Your task to perform on an android device: What's the weather going to be tomorrow? Image 0: 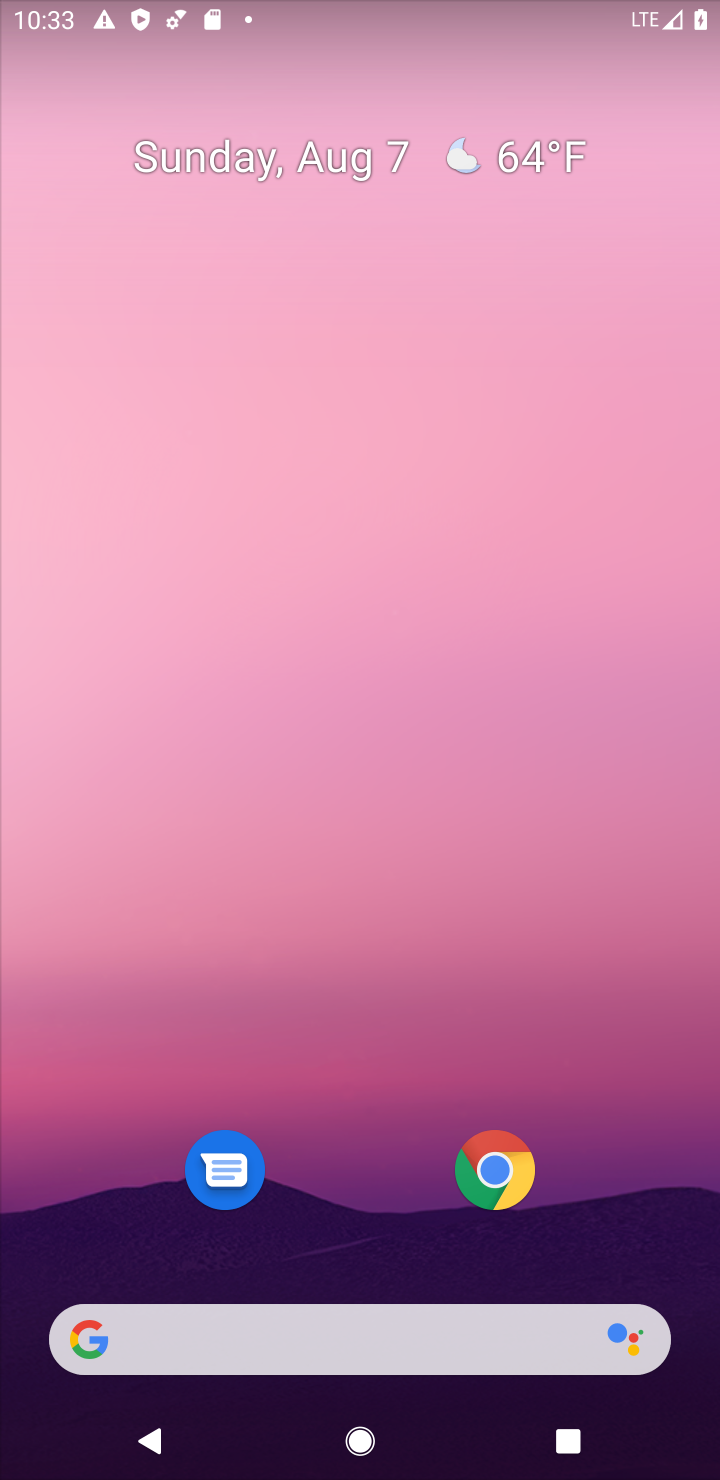
Step 0: drag from (448, 1311) to (718, 1303)
Your task to perform on an android device: What's the weather going to be tomorrow? Image 1: 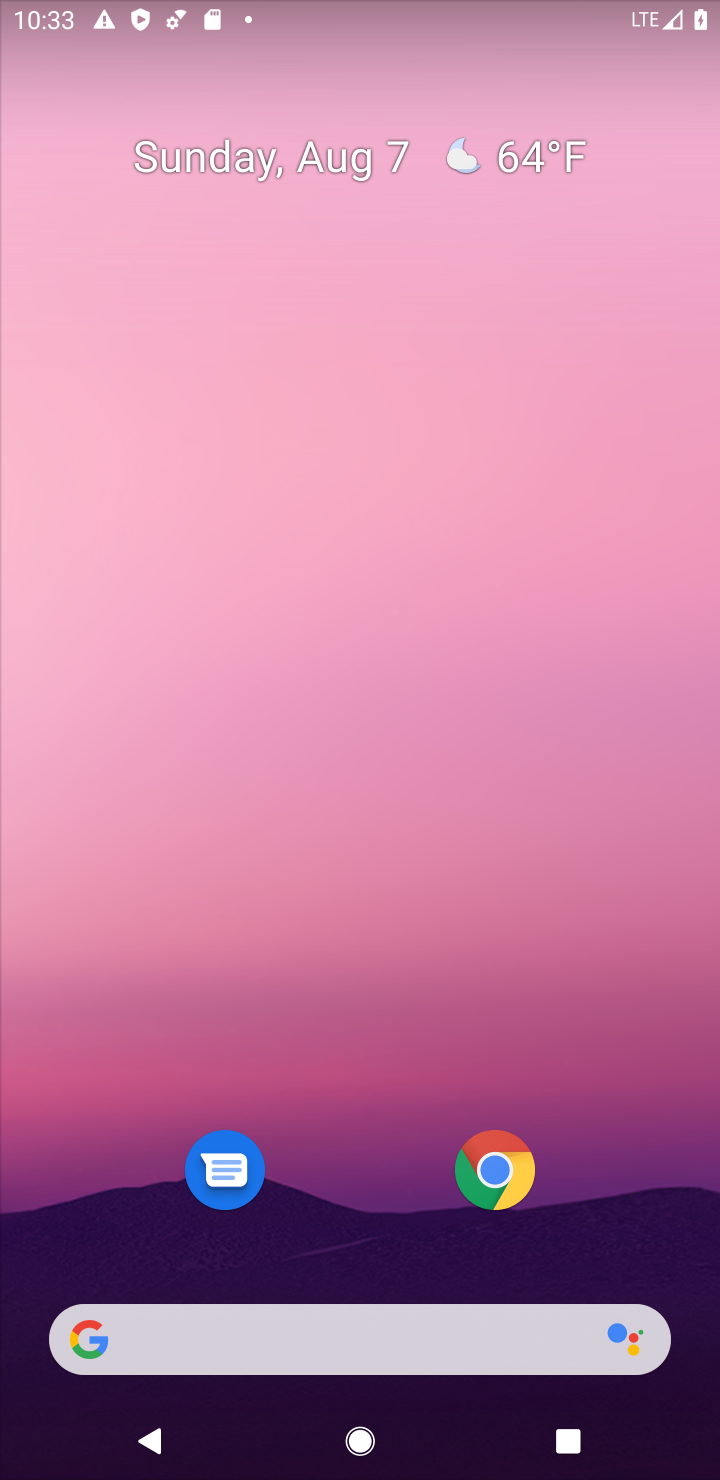
Step 1: drag from (381, 1333) to (344, 19)
Your task to perform on an android device: What's the weather going to be tomorrow? Image 2: 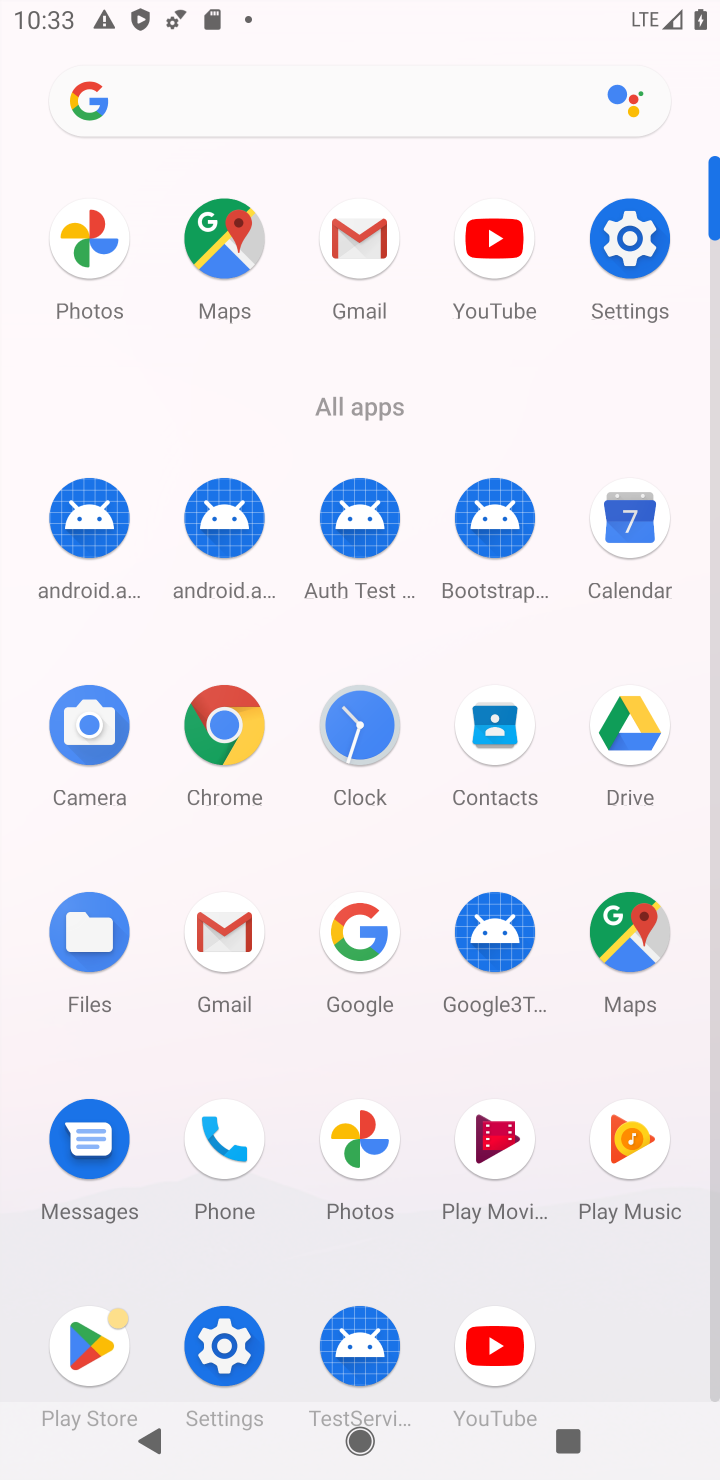
Step 2: click (222, 724)
Your task to perform on an android device: What's the weather going to be tomorrow? Image 3: 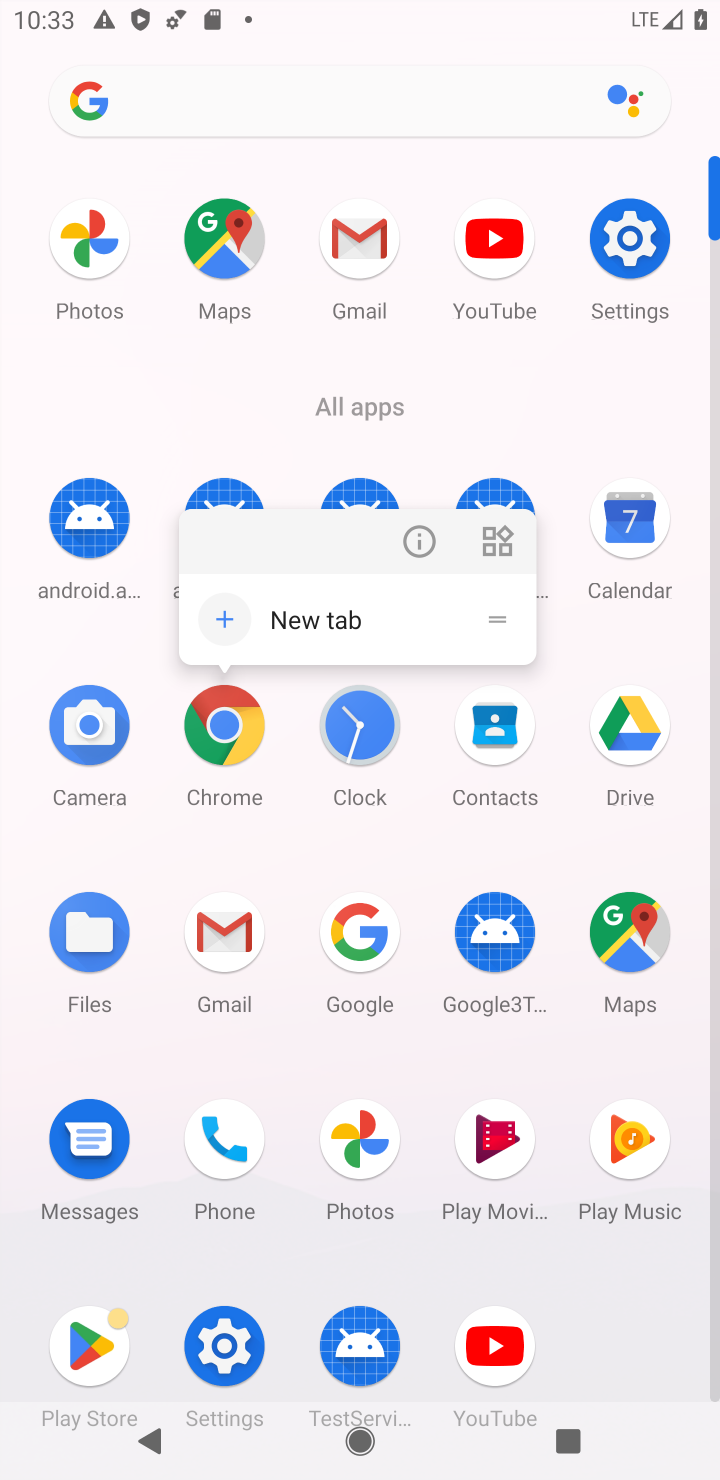
Step 3: click (354, 947)
Your task to perform on an android device: What's the weather going to be tomorrow? Image 4: 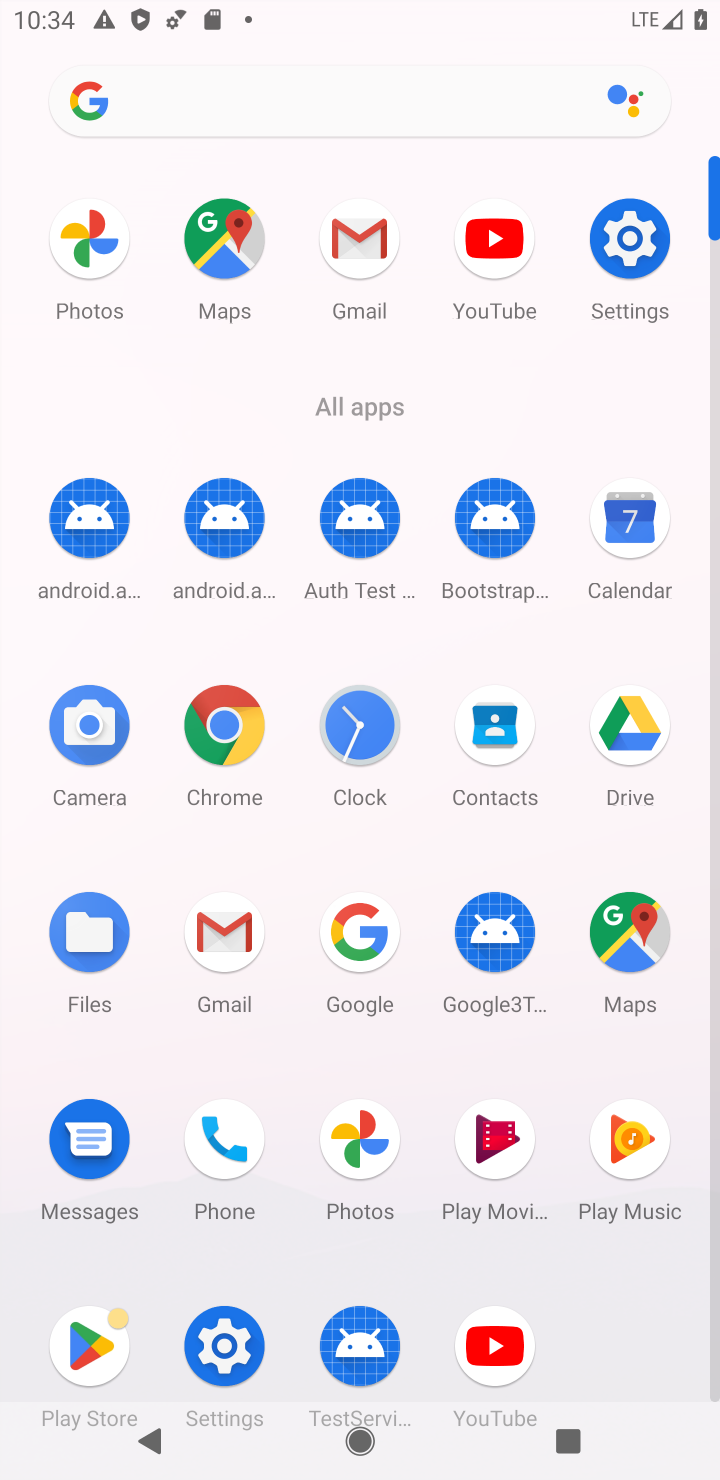
Step 4: click (354, 923)
Your task to perform on an android device: What's the weather going to be tomorrow? Image 5: 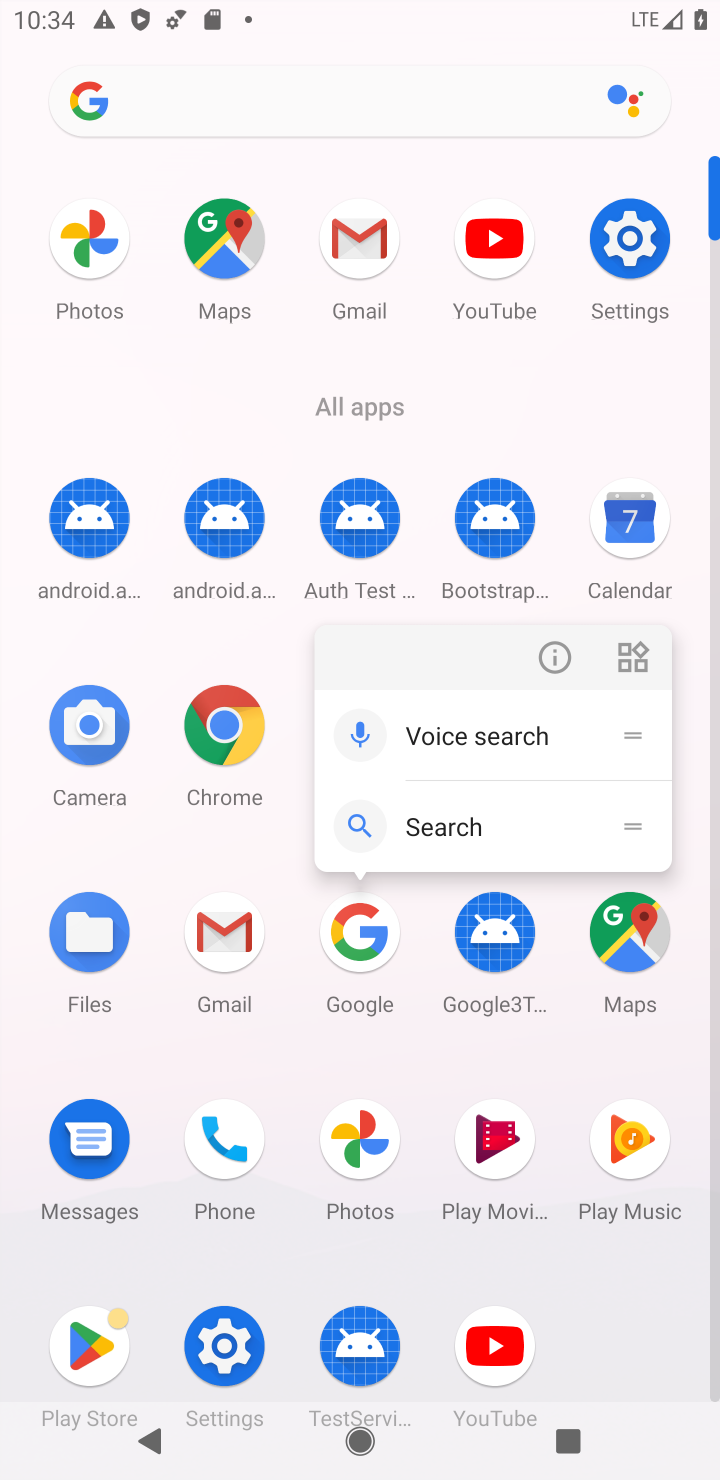
Step 5: click (354, 923)
Your task to perform on an android device: What's the weather going to be tomorrow? Image 6: 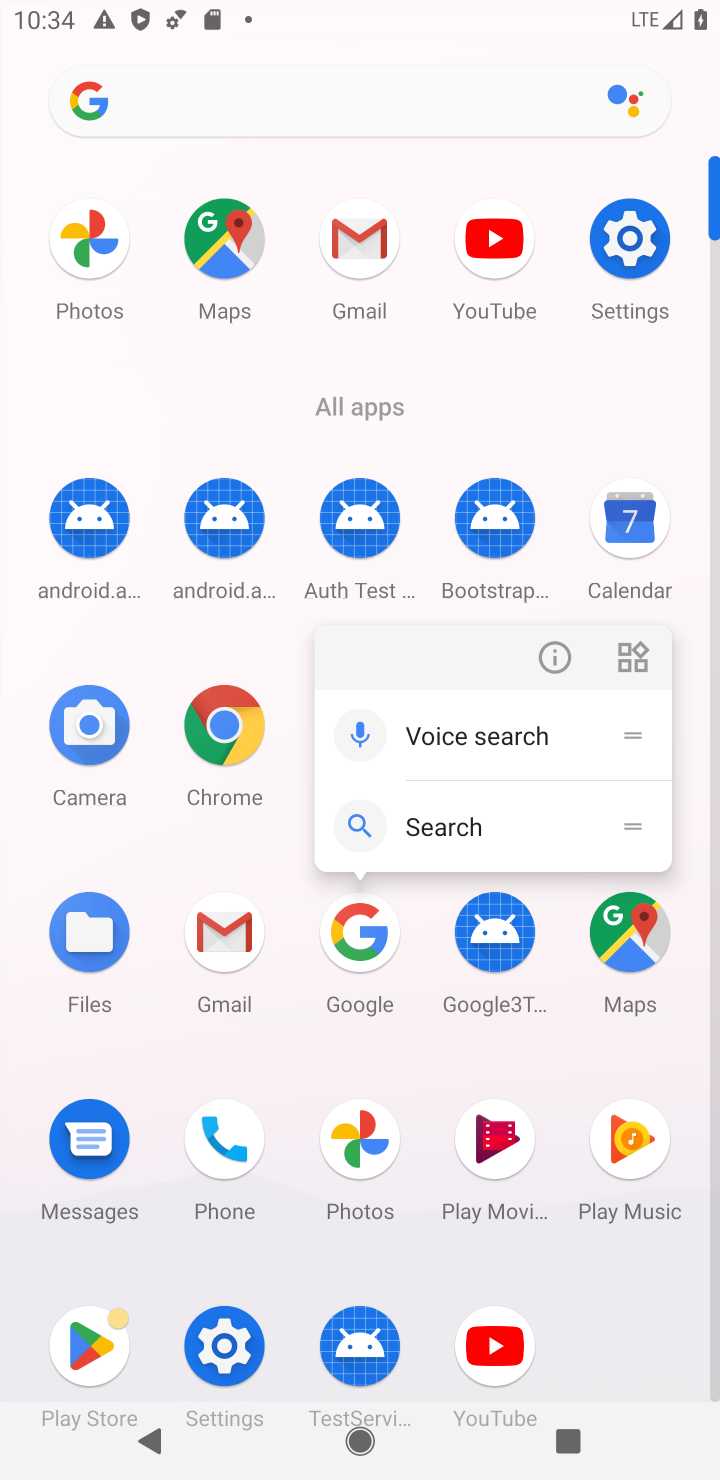
Step 6: click (354, 923)
Your task to perform on an android device: What's the weather going to be tomorrow? Image 7: 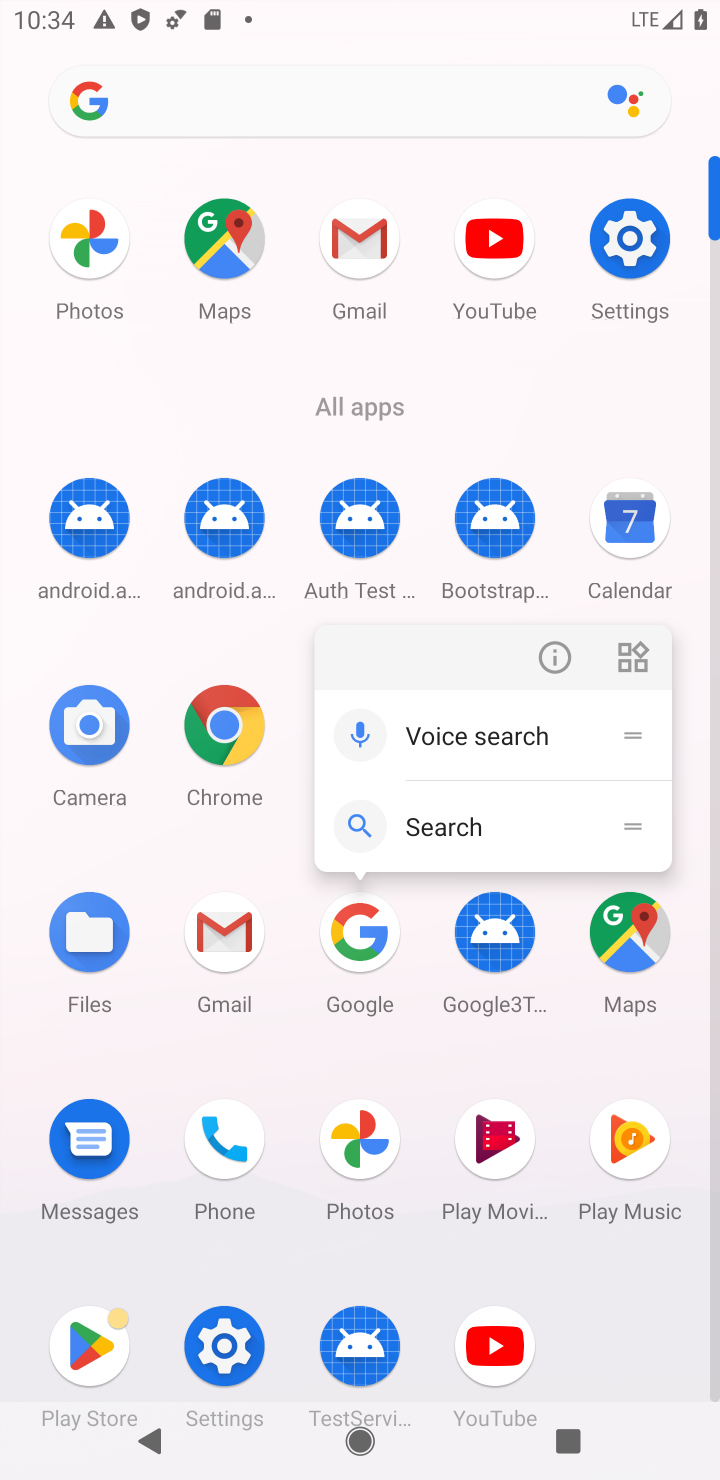
Step 7: click (354, 923)
Your task to perform on an android device: What's the weather going to be tomorrow? Image 8: 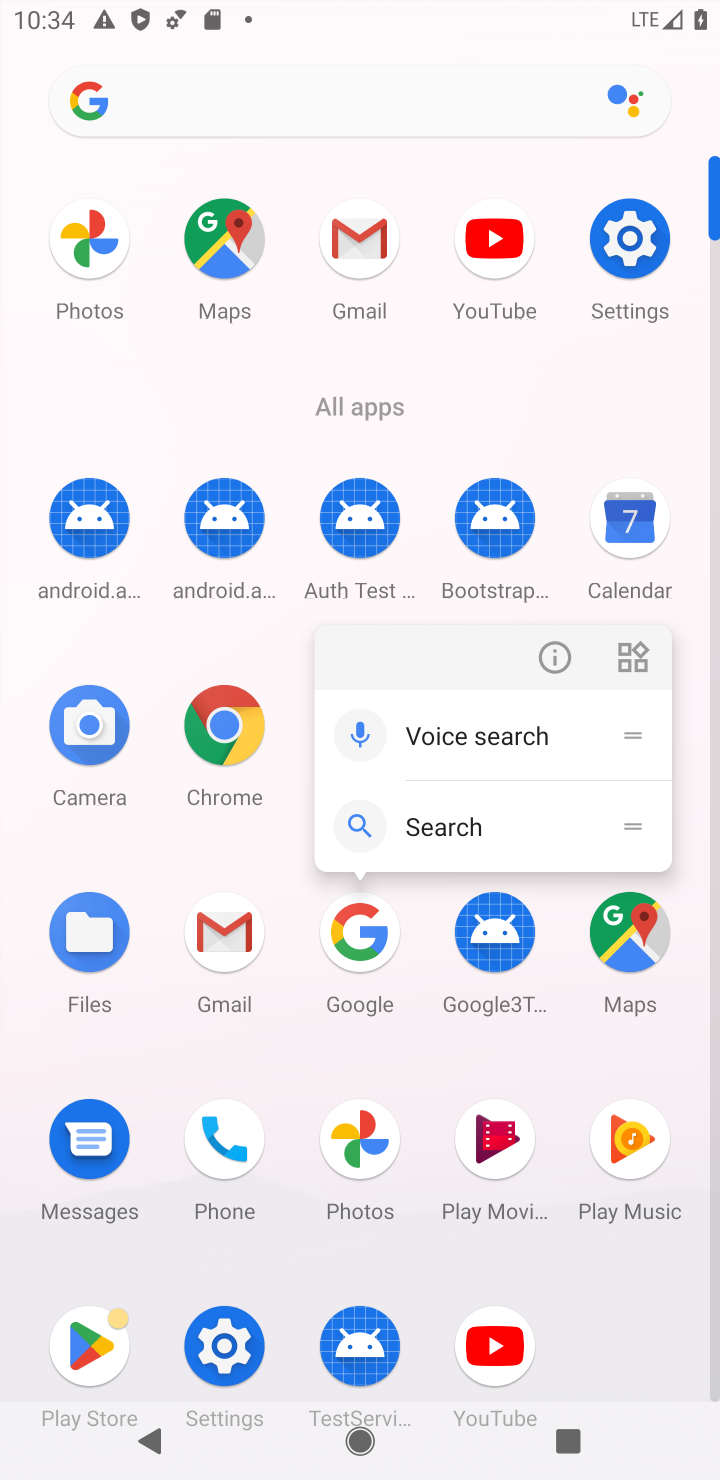
Step 8: click (354, 923)
Your task to perform on an android device: What's the weather going to be tomorrow? Image 9: 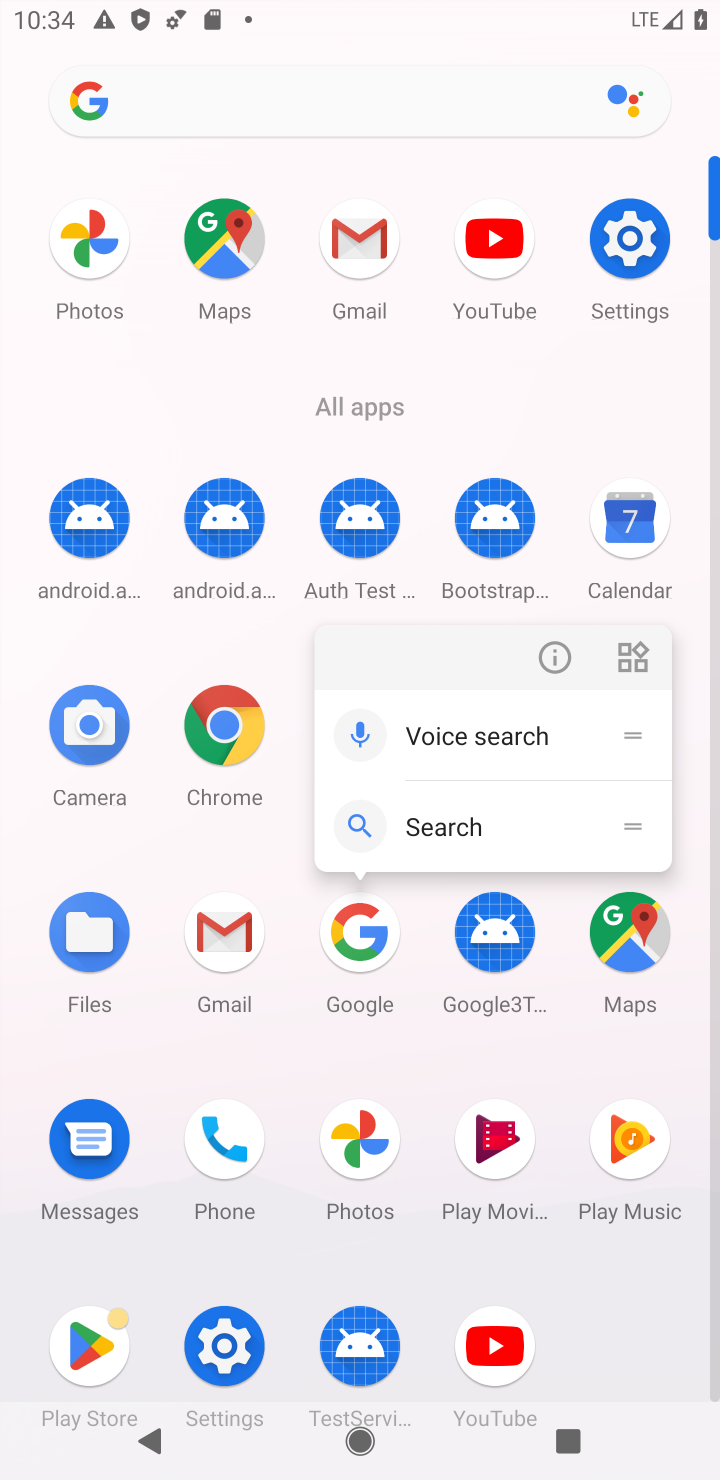
Step 9: click (373, 934)
Your task to perform on an android device: What's the weather going to be tomorrow? Image 10: 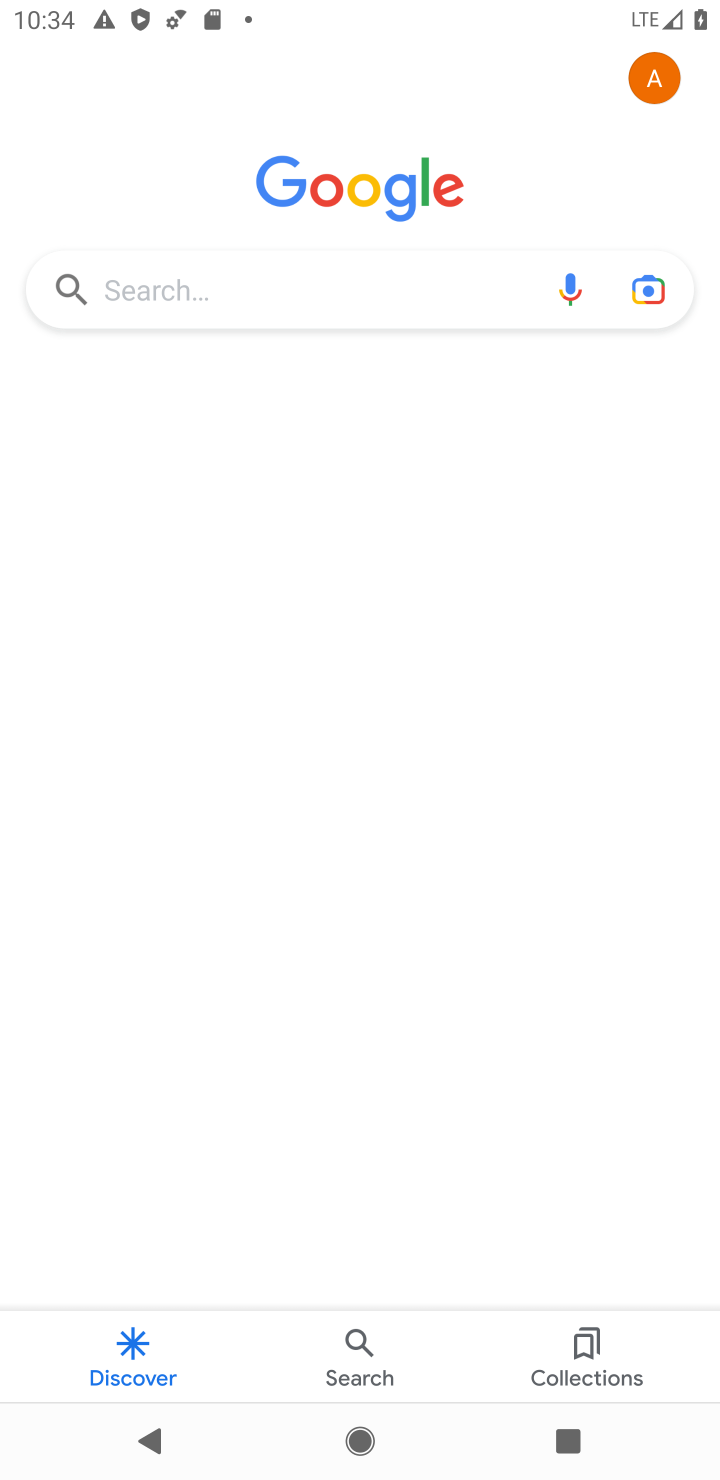
Step 10: click (257, 279)
Your task to perform on an android device: What's the weather going to be tomorrow? Image 11: 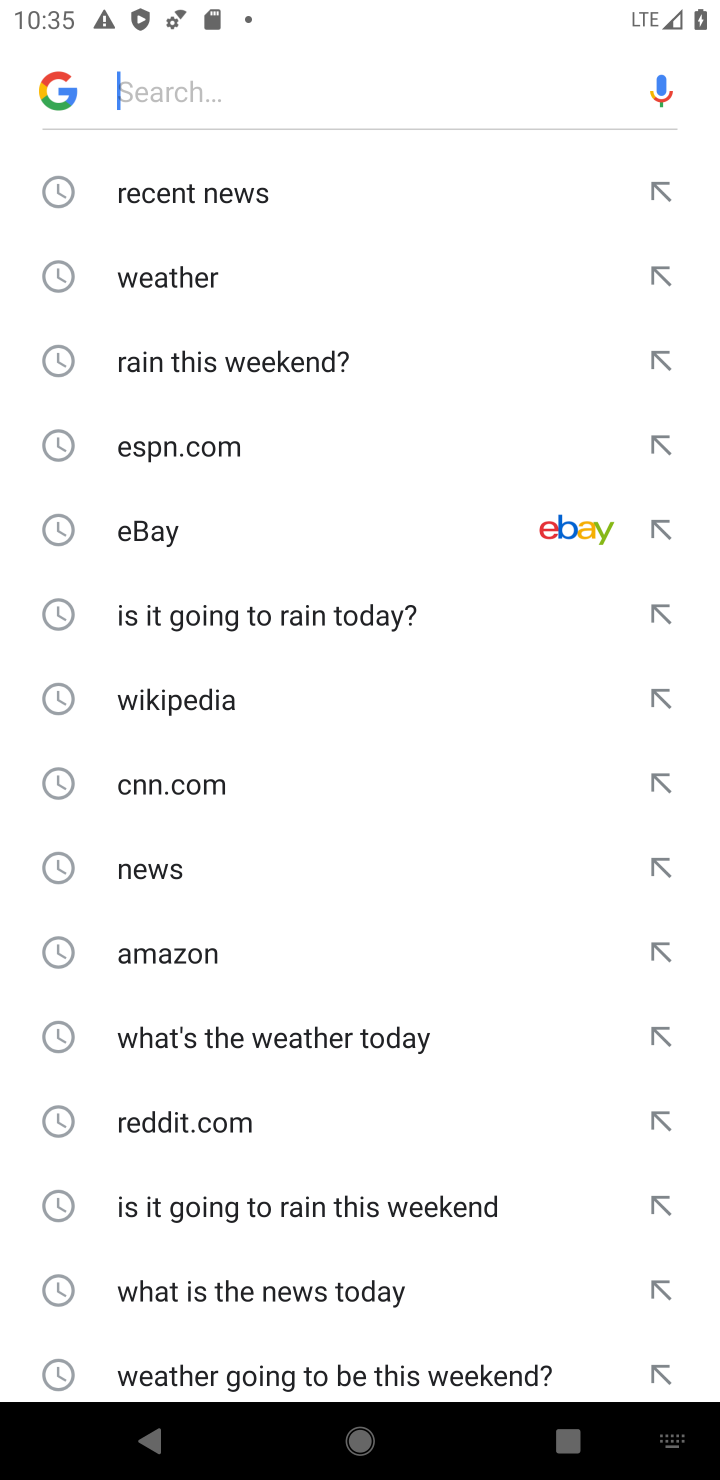
Step 11: type "we"
Your task to perform on an android device: What's the weather going to be tomorrow? Image 12: 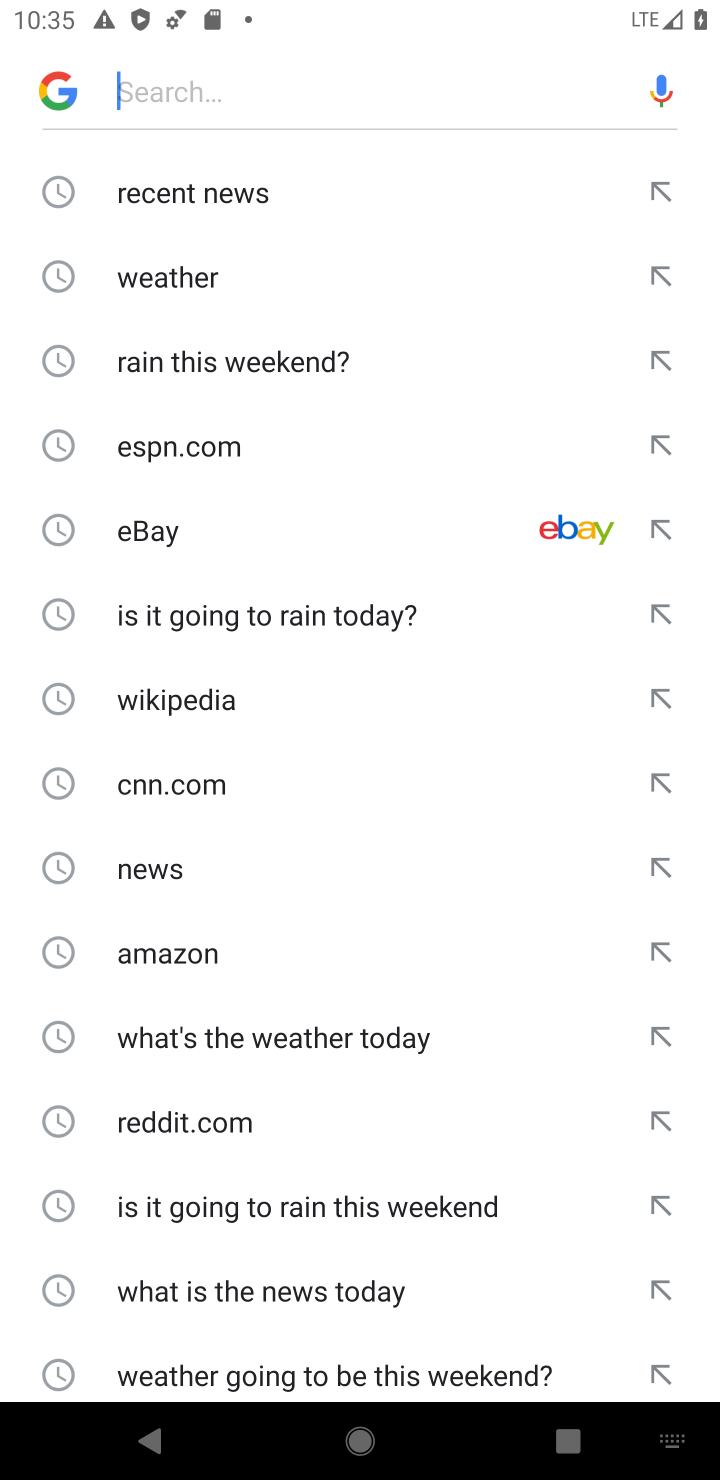
Step 12: click (415, 1204)
Your task to perform on an android device: What's the weather going to be tomorrow? Image 13: 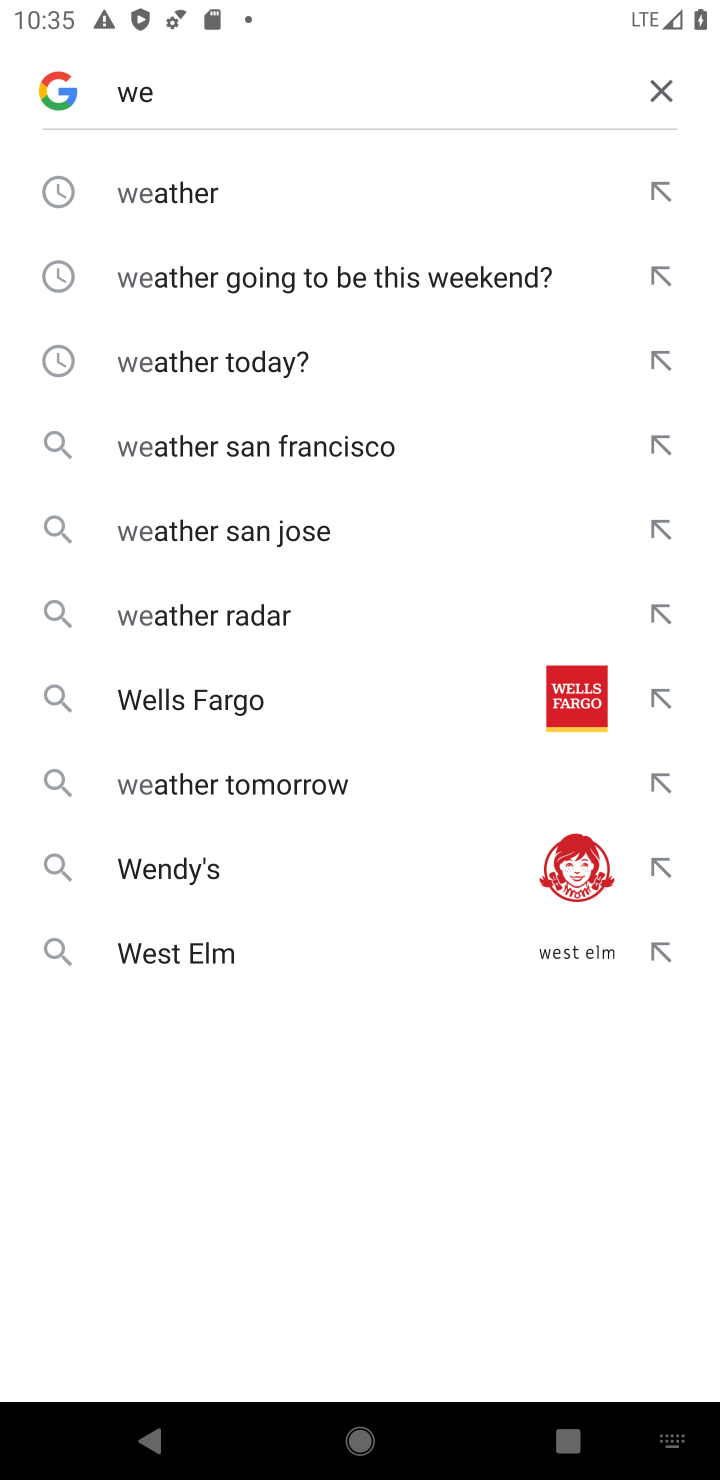
Step 13: click (322, 785)
Your task to perform on an android device: What's the weather going to be tomorrow? Image 14: 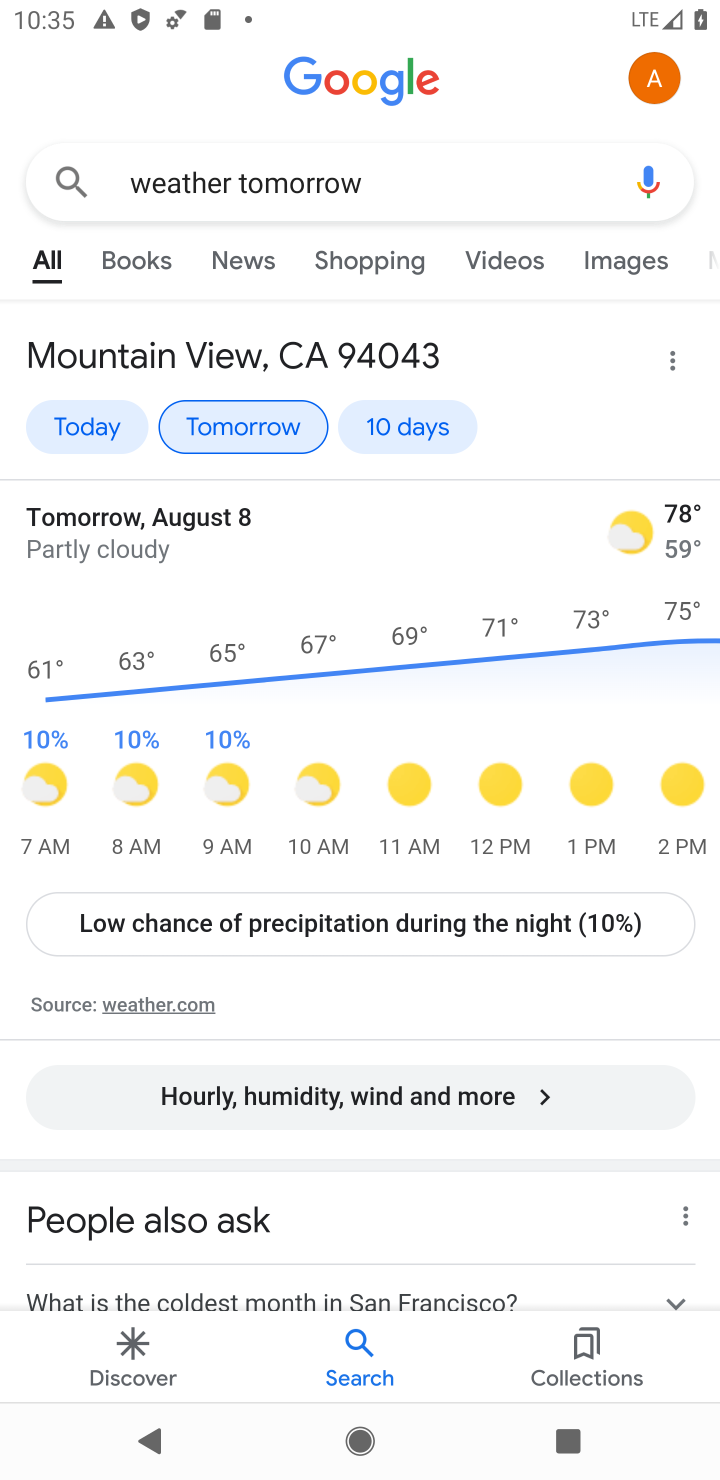
Step 14: task complete